Your task to perform on an android device: remove spam from my inbox in the gmail app Image 0: 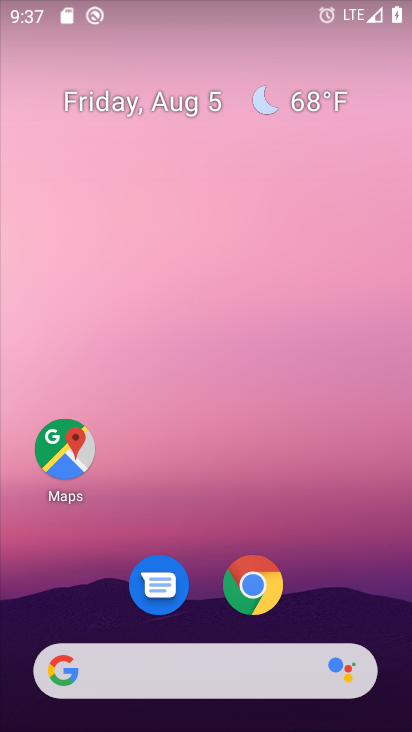
Step 0: drag from (221, 503) to (236, 18)
Your task to perform on an android device: remove spam from my inbox in the gmail app Image 1: 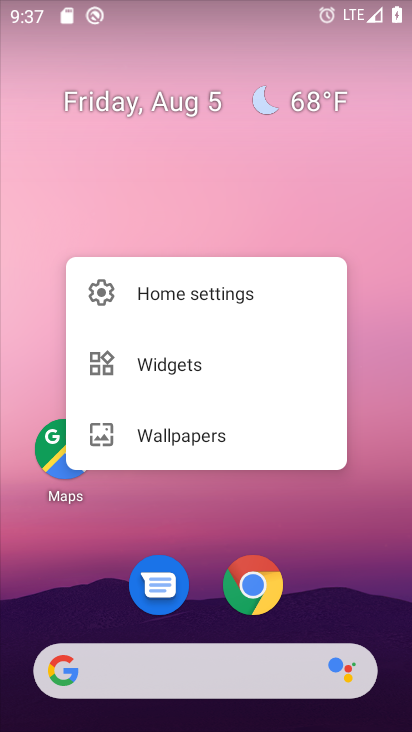
Step 1: click (290, 484)
Your task to perform on an android device: remove spam from my inbox in the gmail app Image 2: 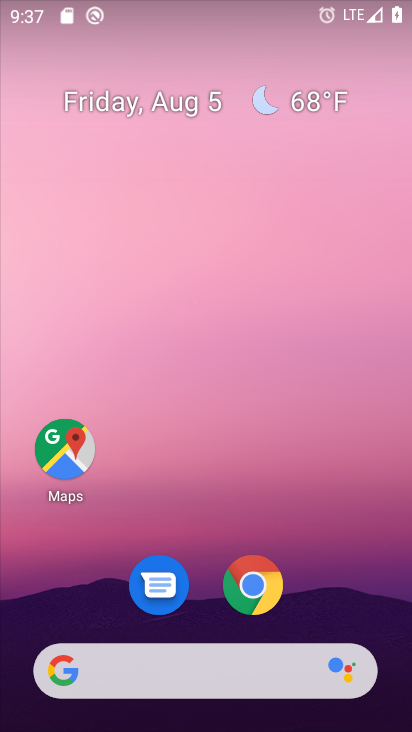
Step 2: drag from (206, 530) to (239, 1)
Your task to perform on an android device: remove spam from my inbox in the gmail app Image 3: 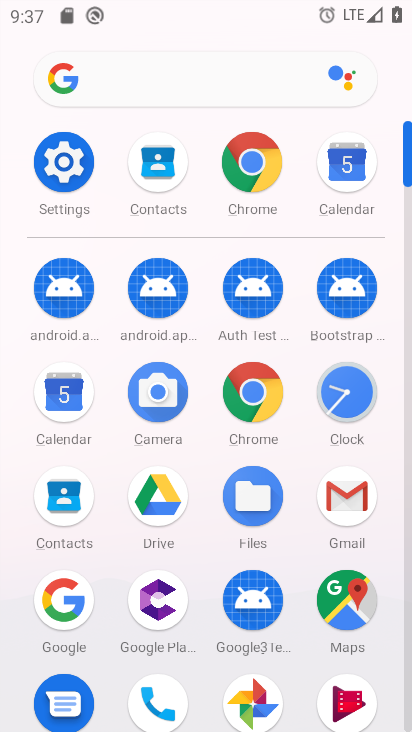
Step 3: click (344, 489)
Your task to perform on an android device: remove spam from my inbox in the gmail app Image 4: 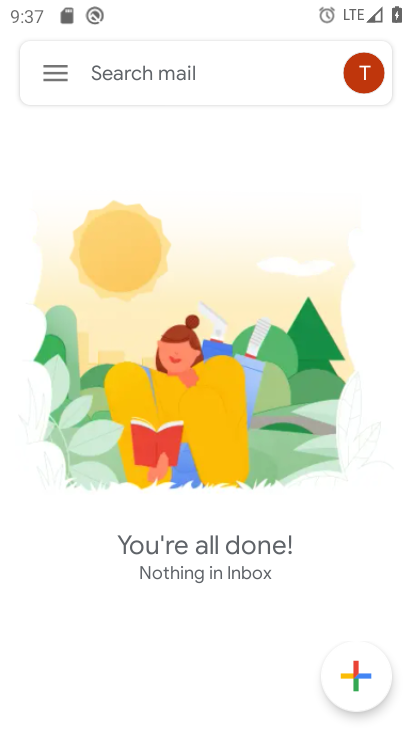
Step 4: click (54, 65)
Your task to perform on an android device: remove spam from my inbox in the gmail app Image 5: 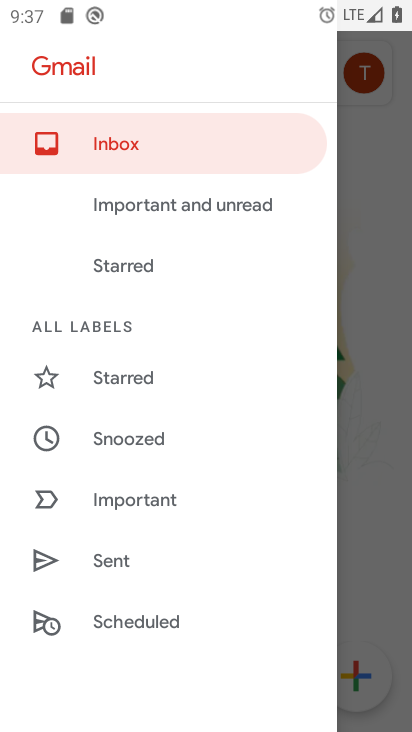
Step 5: drag from (175, 545) to (201, 34)
Your task to perform on an android device: remove spam from my inbox in the gmail app Image 6: 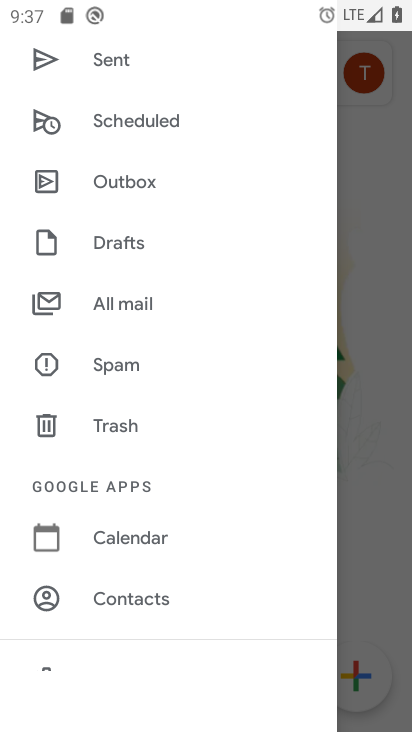
Step 6: click (126, 355)
Your task to perform on an android device: remove spam from my inbox in the gmail app Image 7: 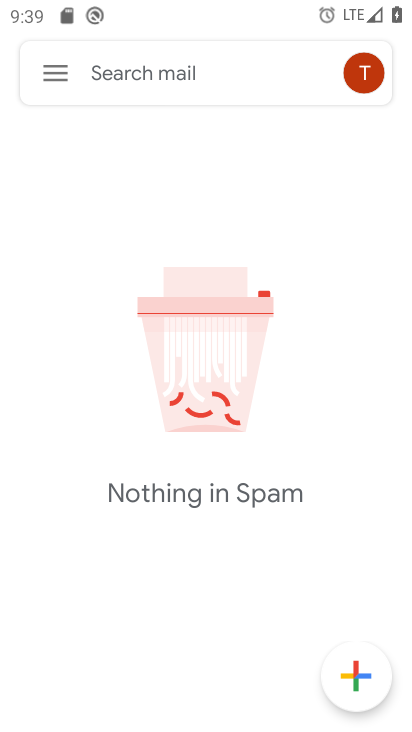
Step 7: task complete